Your task to perform on an android device: Do I have any events tomorrow? Image 0: 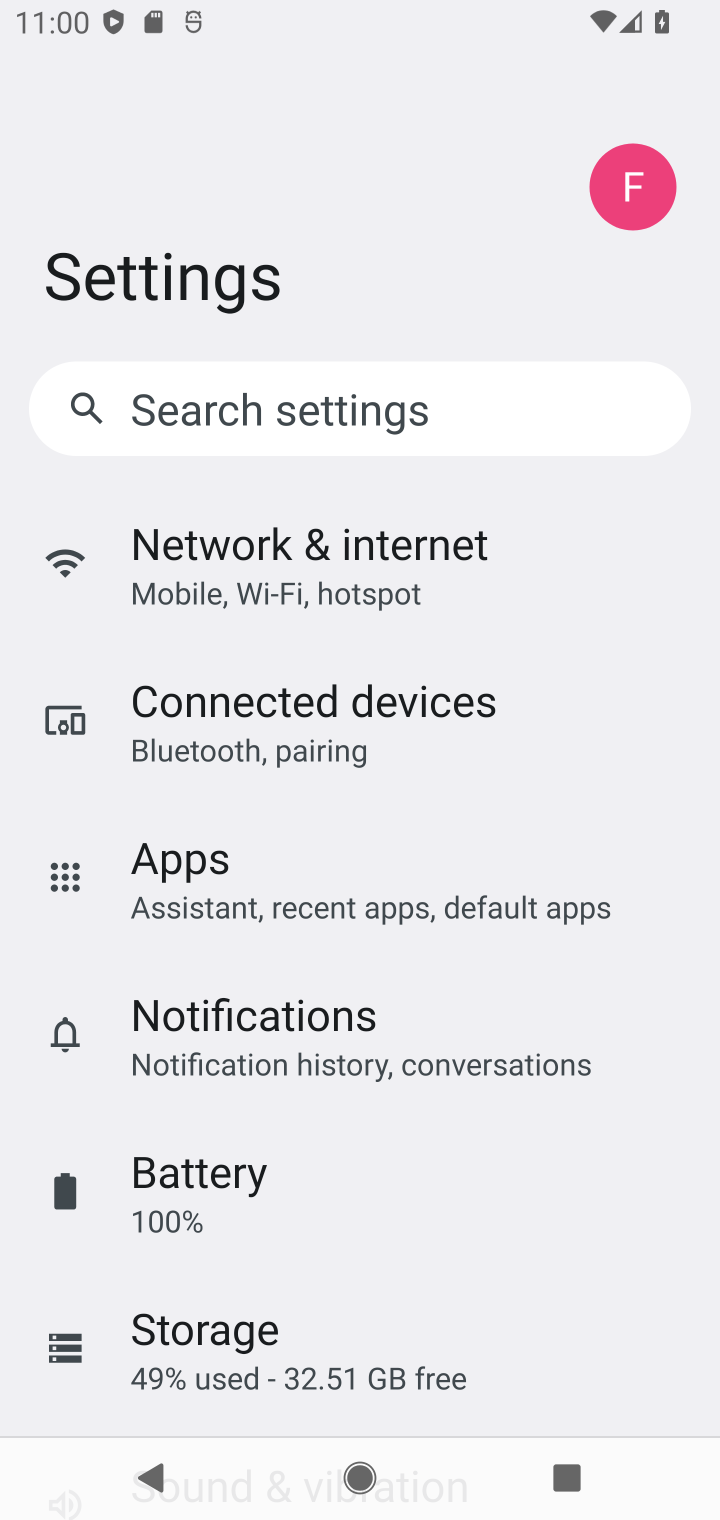
Step 0: press home button
Your task to perform on an android device: Do I have any events tomorrow? Image 1: 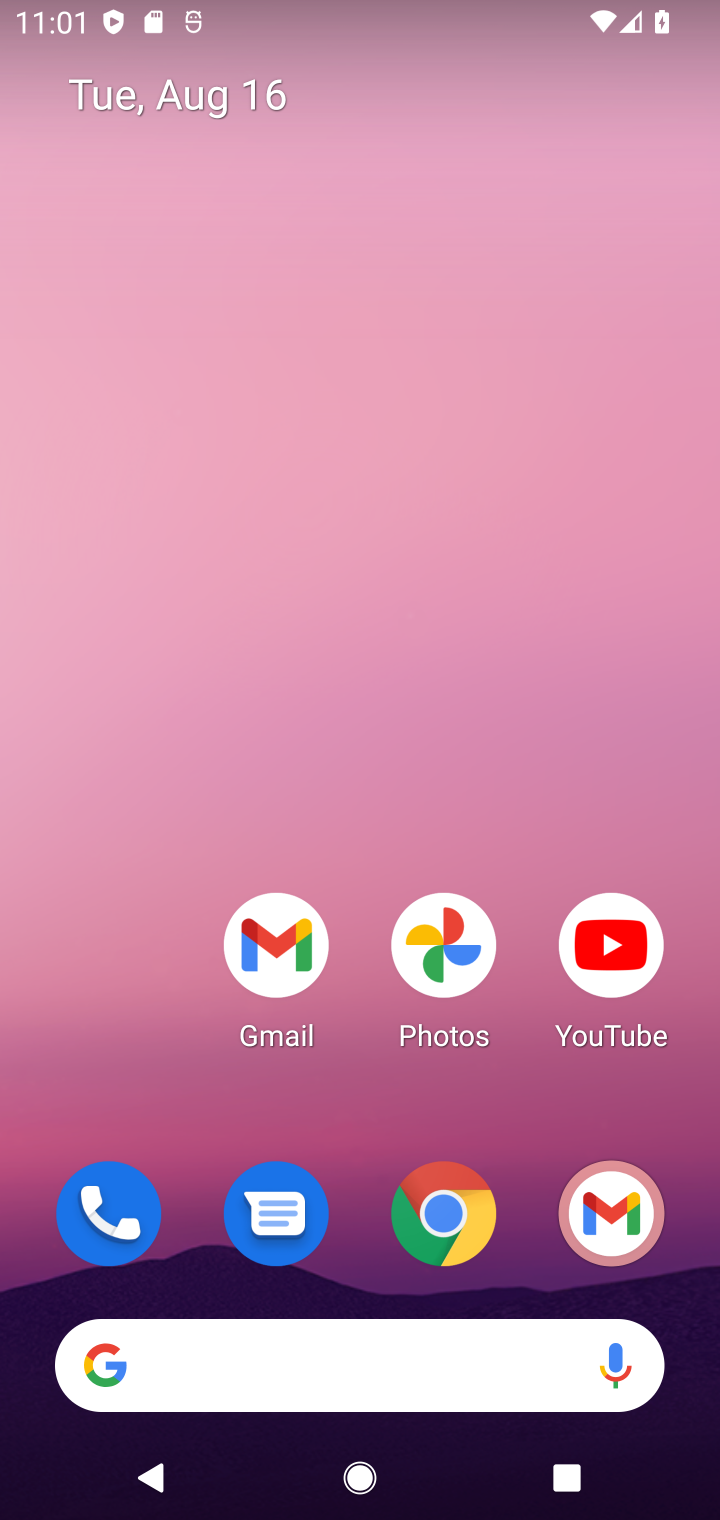
Step 1: drag from (320, 1084) to (477, 2)
Your task to perform on an android device: Do I have any events tomorrow? Image 2: 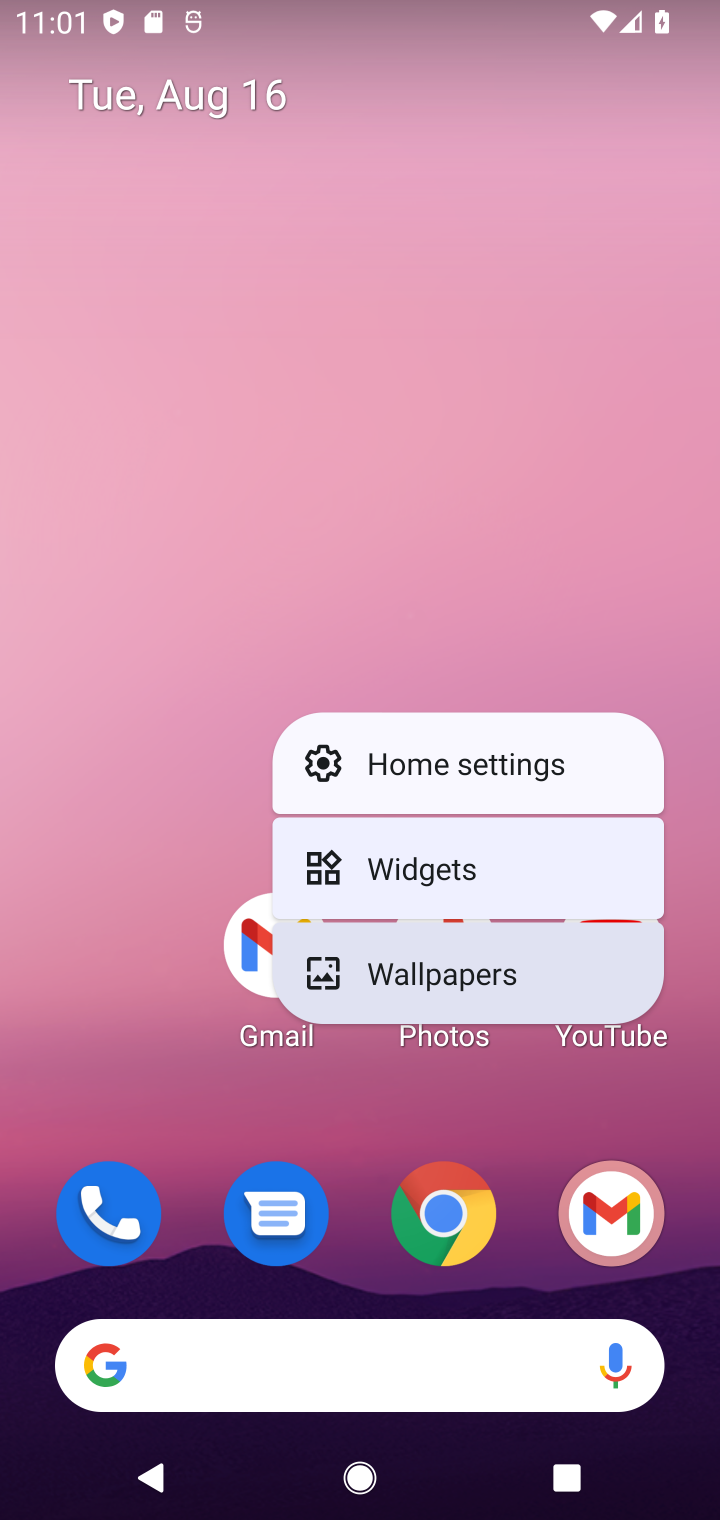
Step 2: drag from (18, 991) to (133, 986)
Your task to perform on an android device: Do I have any events tomorrow? Image 3: 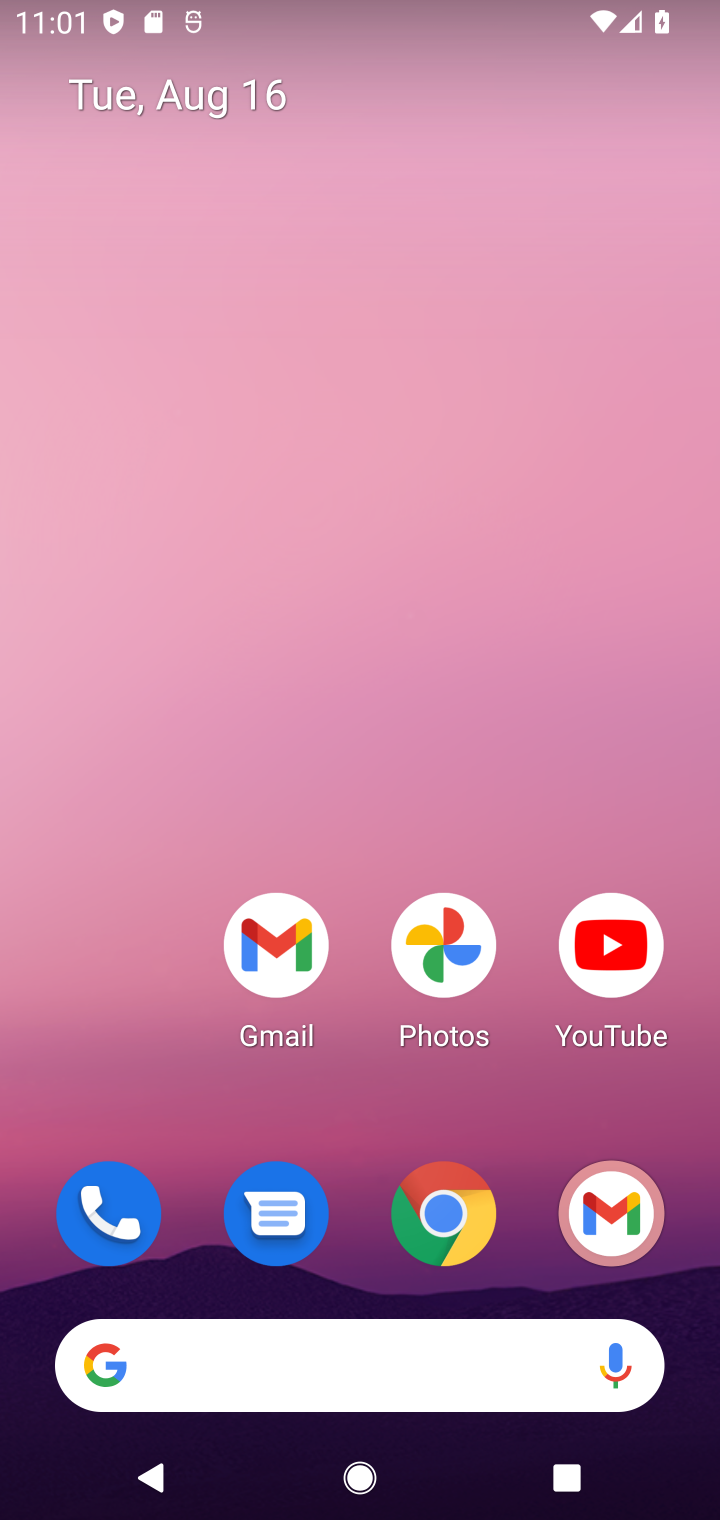
Step 3: click (133, 986)
Your task to perform on an android device: Do I have any events tomorrow? Image 4: 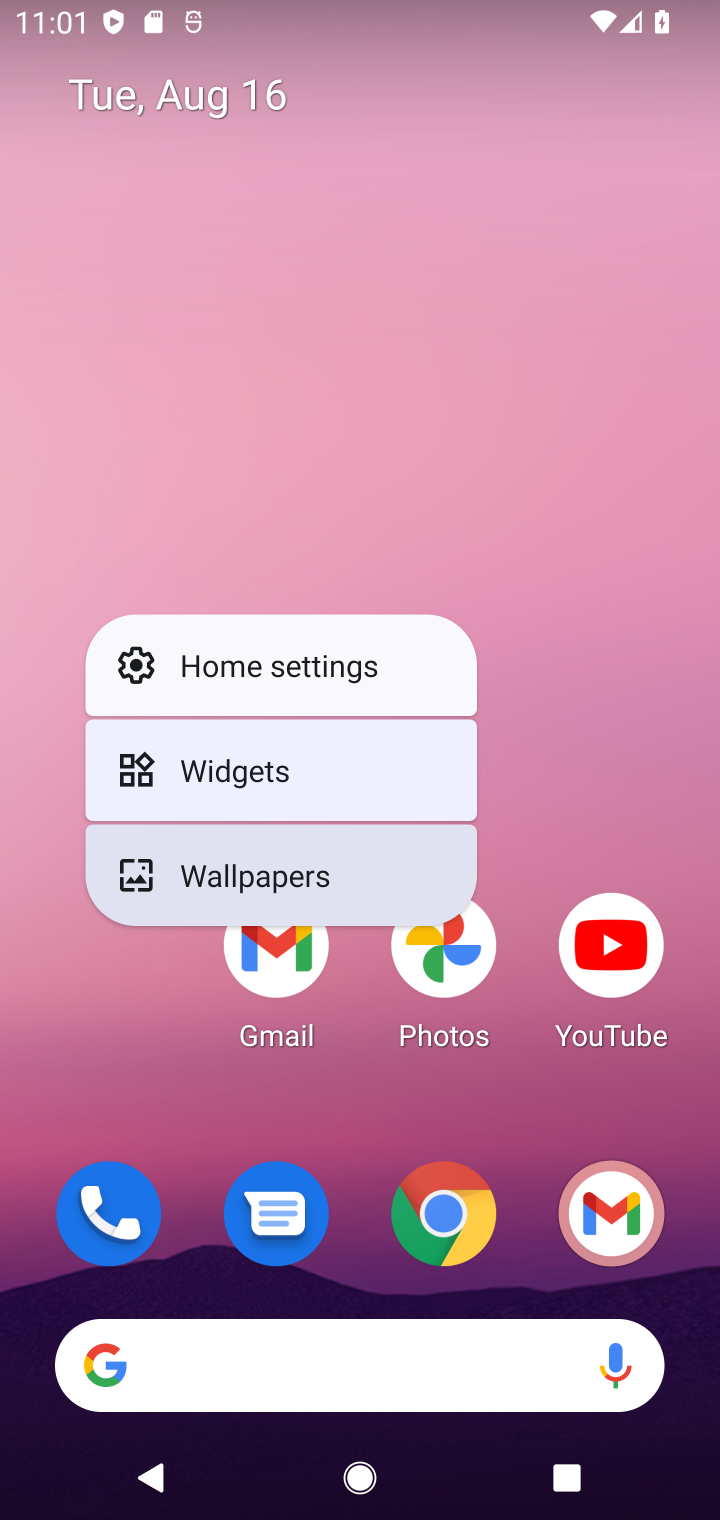
Step 4: click (553, 685)
Your task to perform on an android device: Do I have any events tomorrow? Image 5: 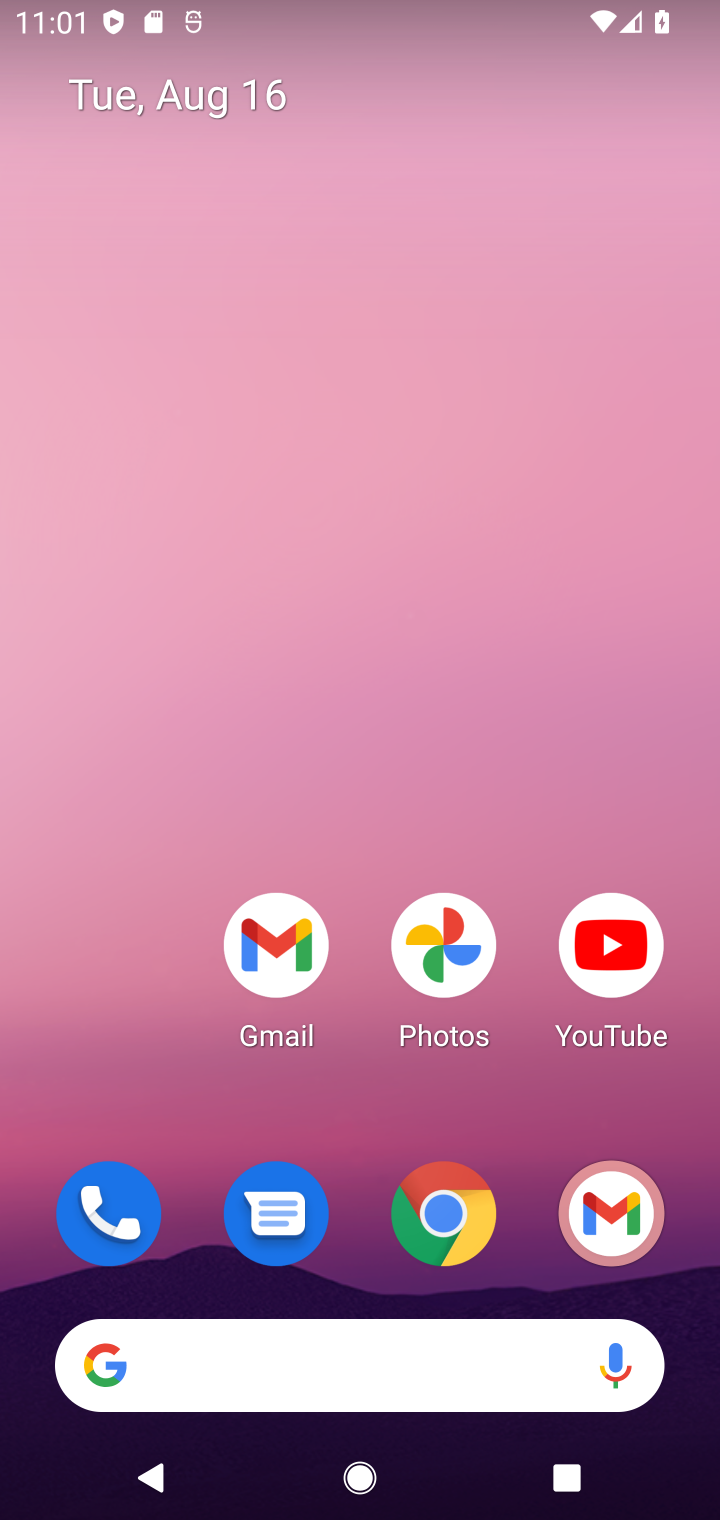
Step 5: click (553, 685)
Your task to perform on an android device: Do I have any events tomorrow? Image 6: 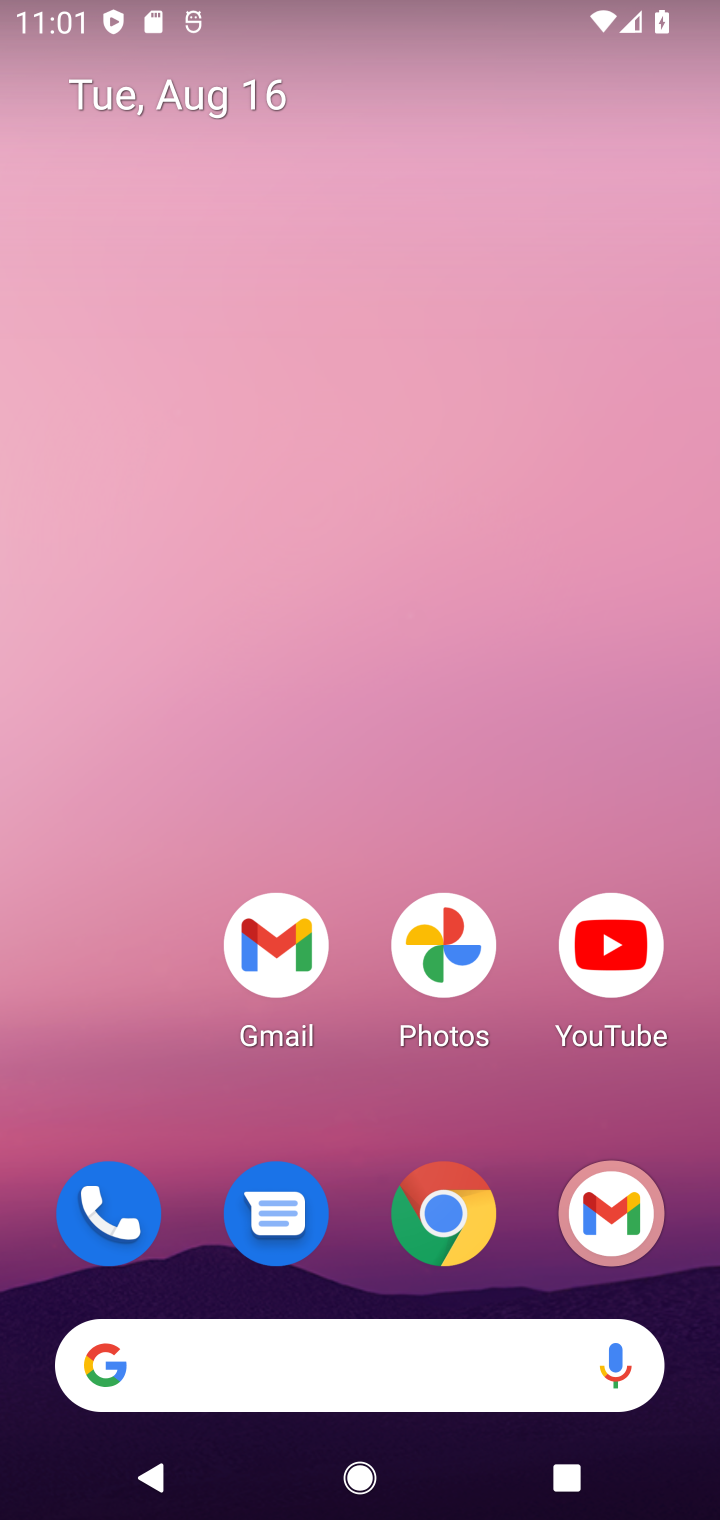
Step 6: drag from (358, 1070) to (559, 14)
Your task to perform on an android device: Do I have any events tomorrow? Image 7: 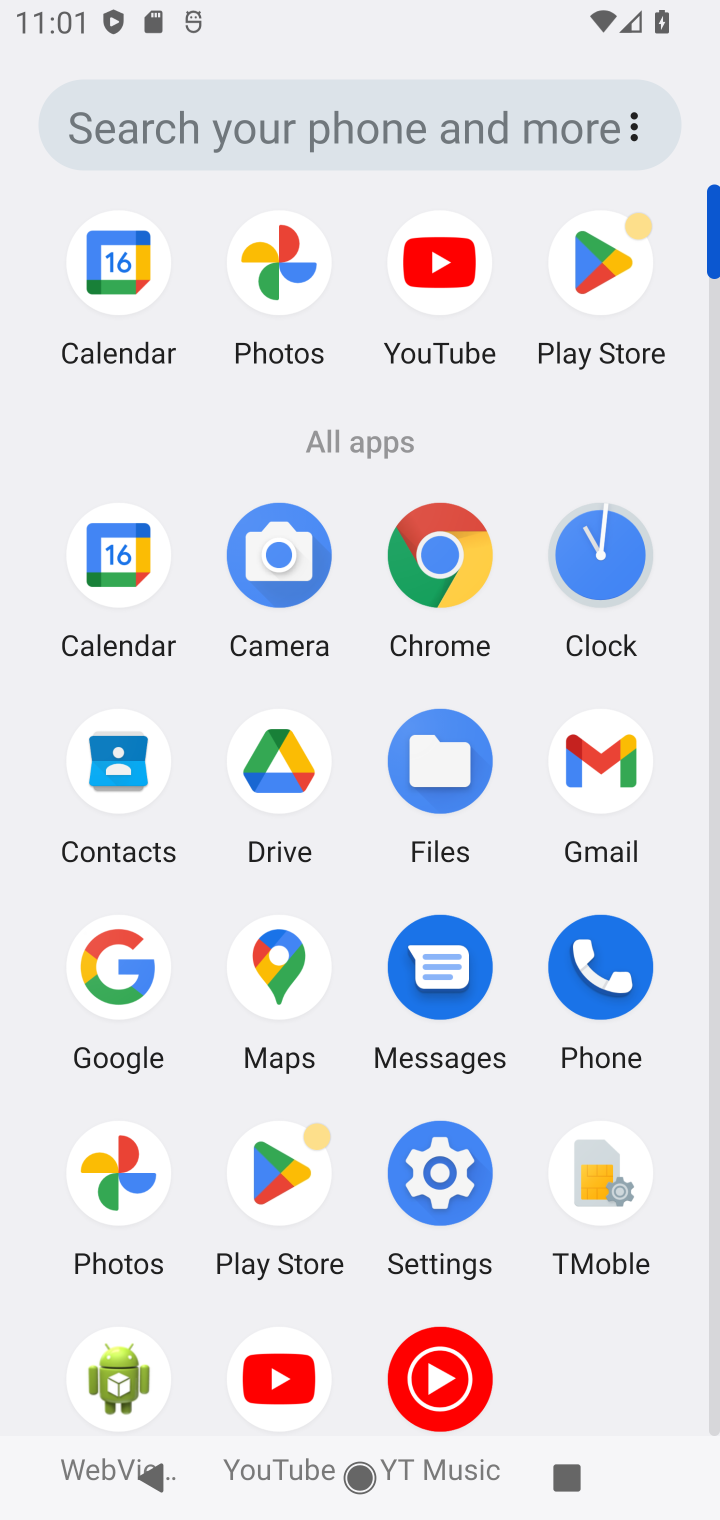
Step 7: click (113, 527)
Your task to perform on an android device: Do I have any events tomorrow? Image 8: 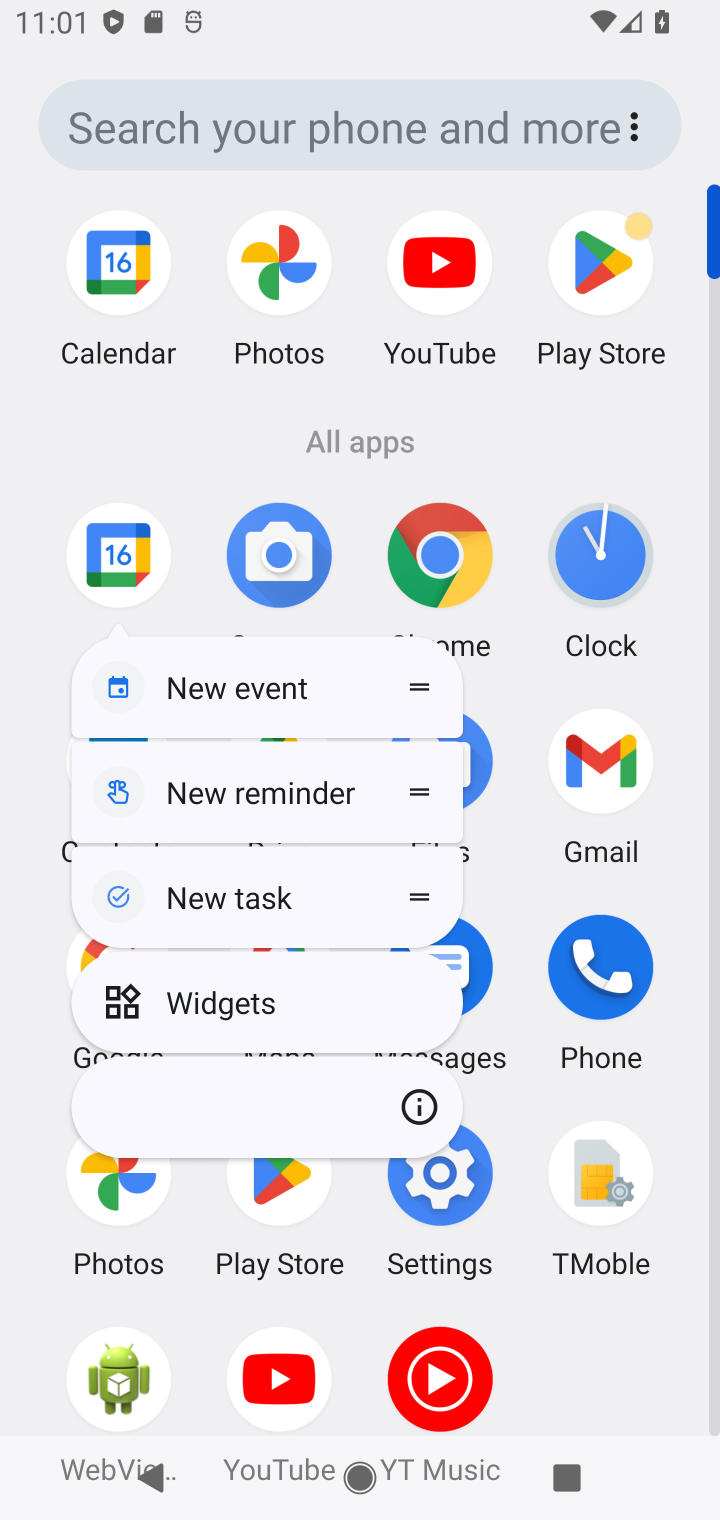
Step 8: click (117, 556)
Your task to perform on an android device: Do I have any events tomorrow? Image 9: 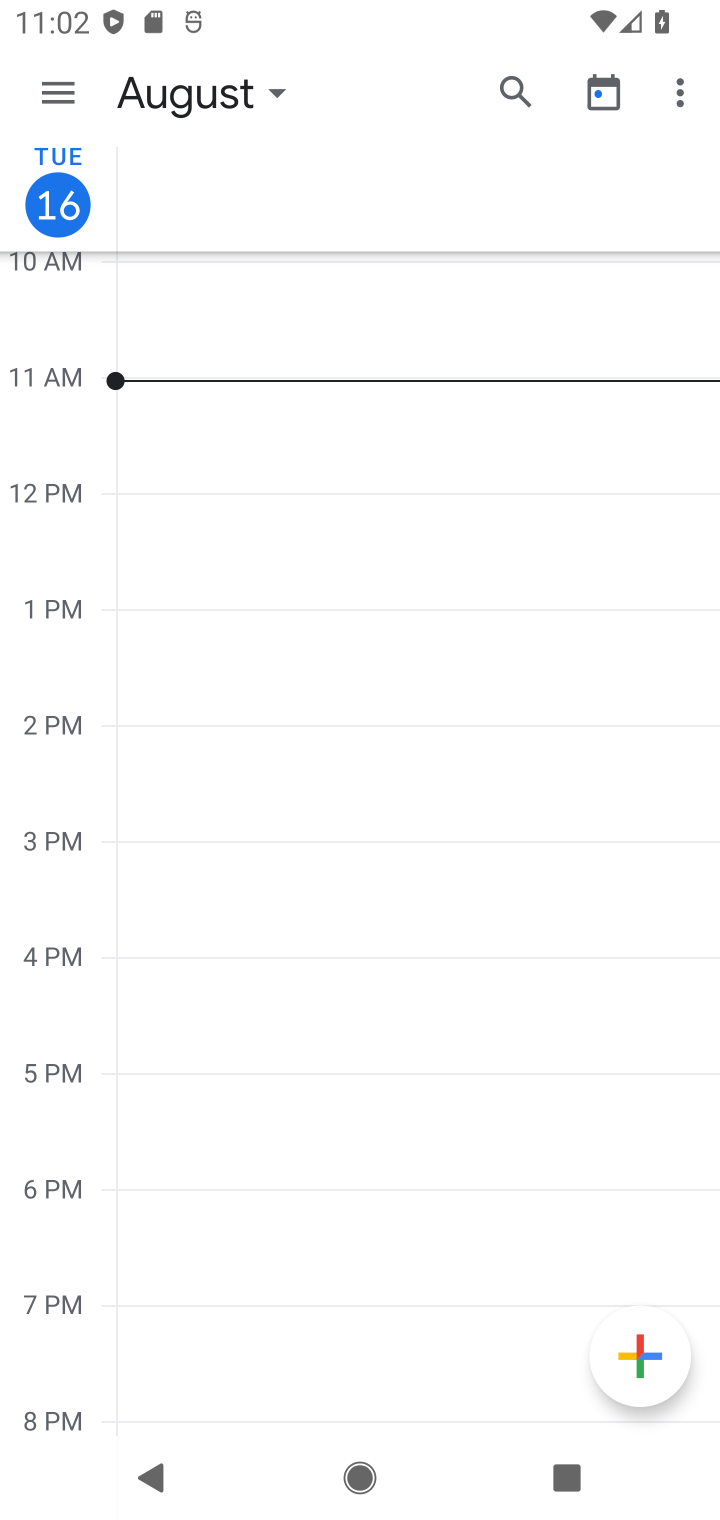
Step 9: click (200, 99)
Your task to perform on an android device: Do I have any events tomorrow? Image 10: 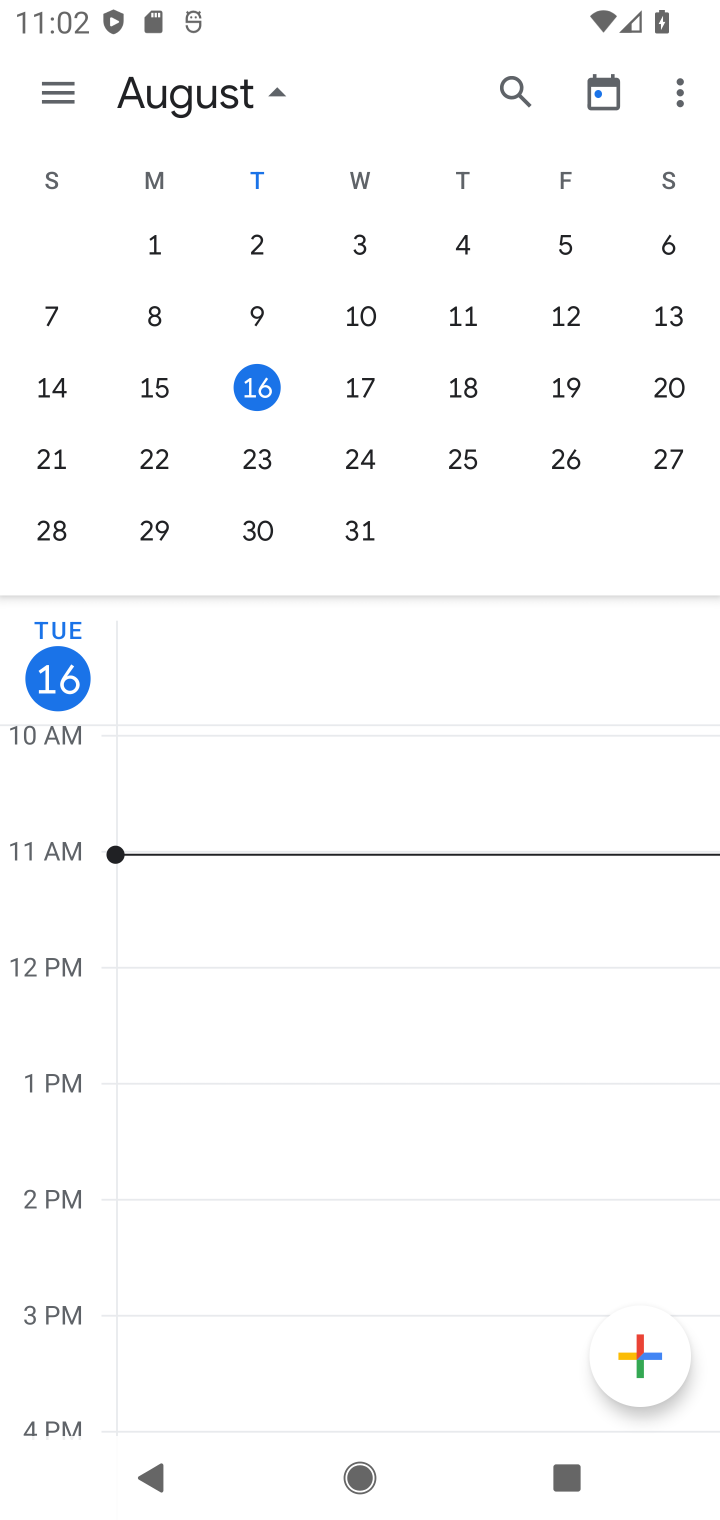
Step 10: click (371, 388)
Your task to perform on an android device: Do I have any events tomorrow? Image 11: 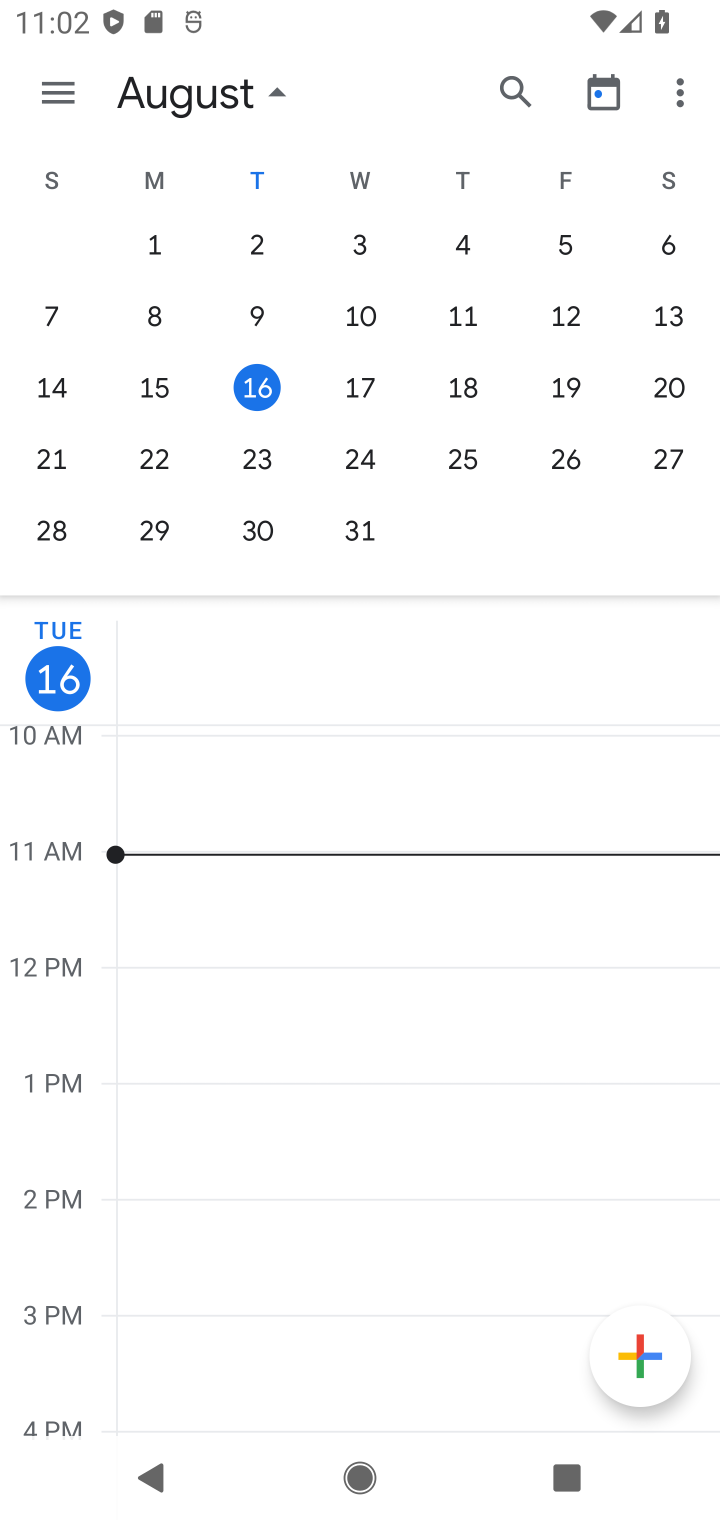
Step 11: click (371, 388)
Your task to perform on an android device: Do I have any events tomorrow? Image 12: 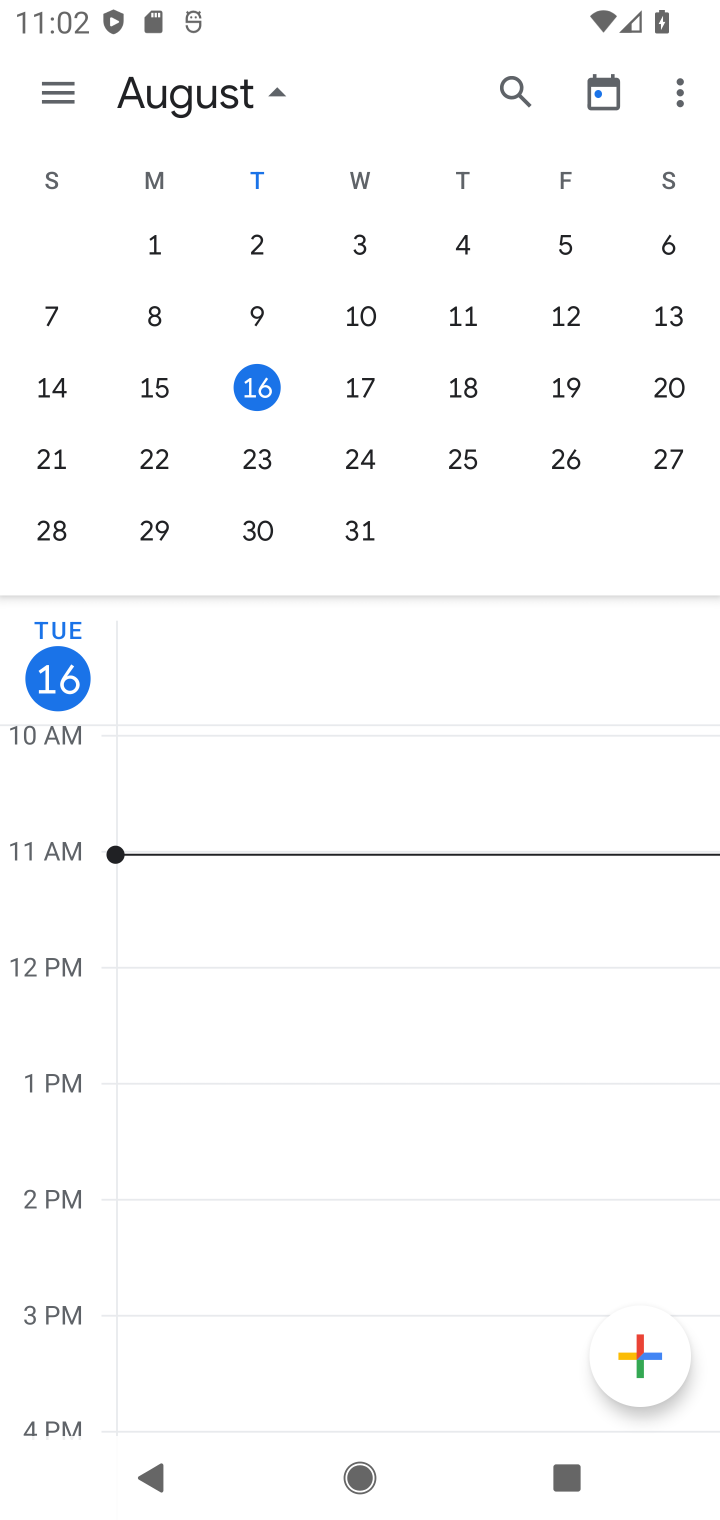
Step 12: click (355, 382)
Your task to perform on an android device: Do I have any events tomorrow? Image 13: 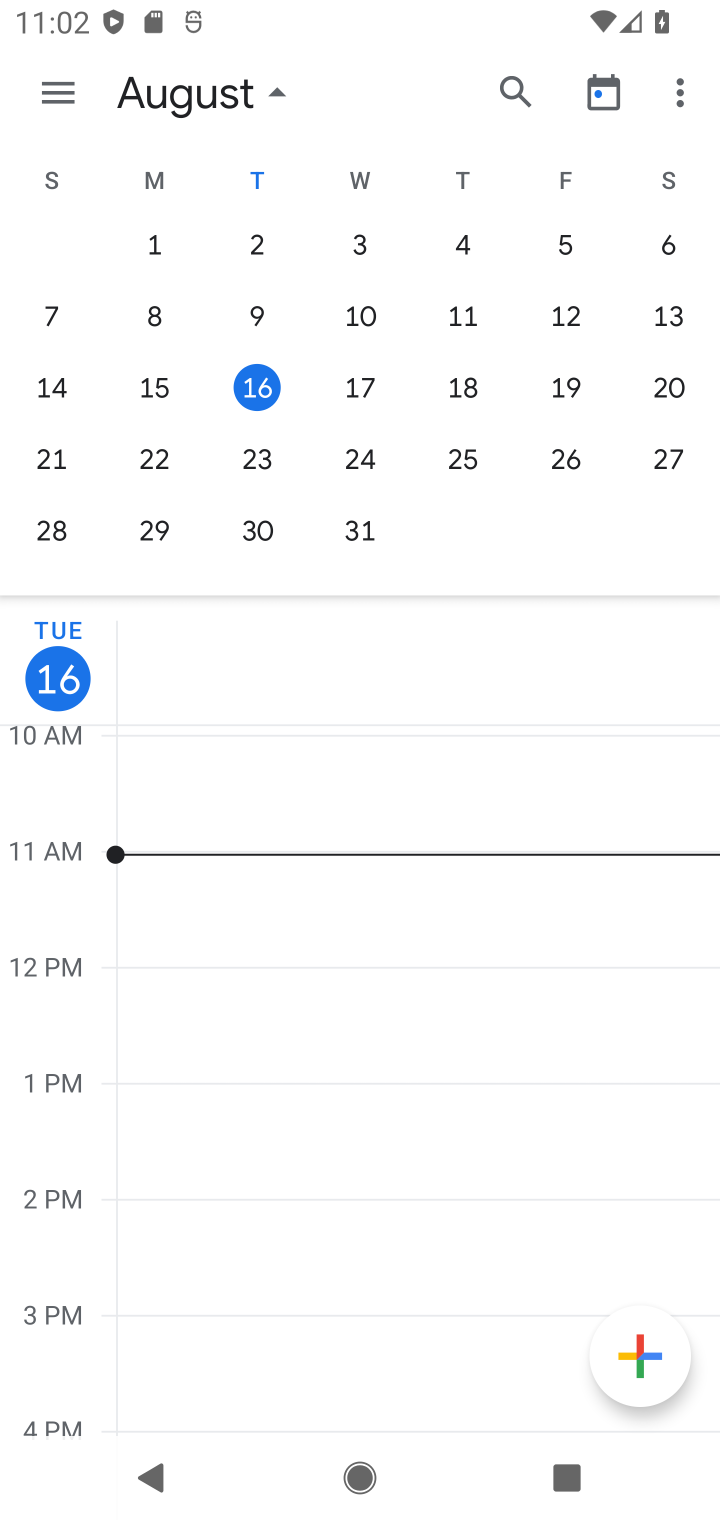
Step 13: click (355, 382)
Your task to perform on an android device: Do I have any events tomorrow? Image 14: 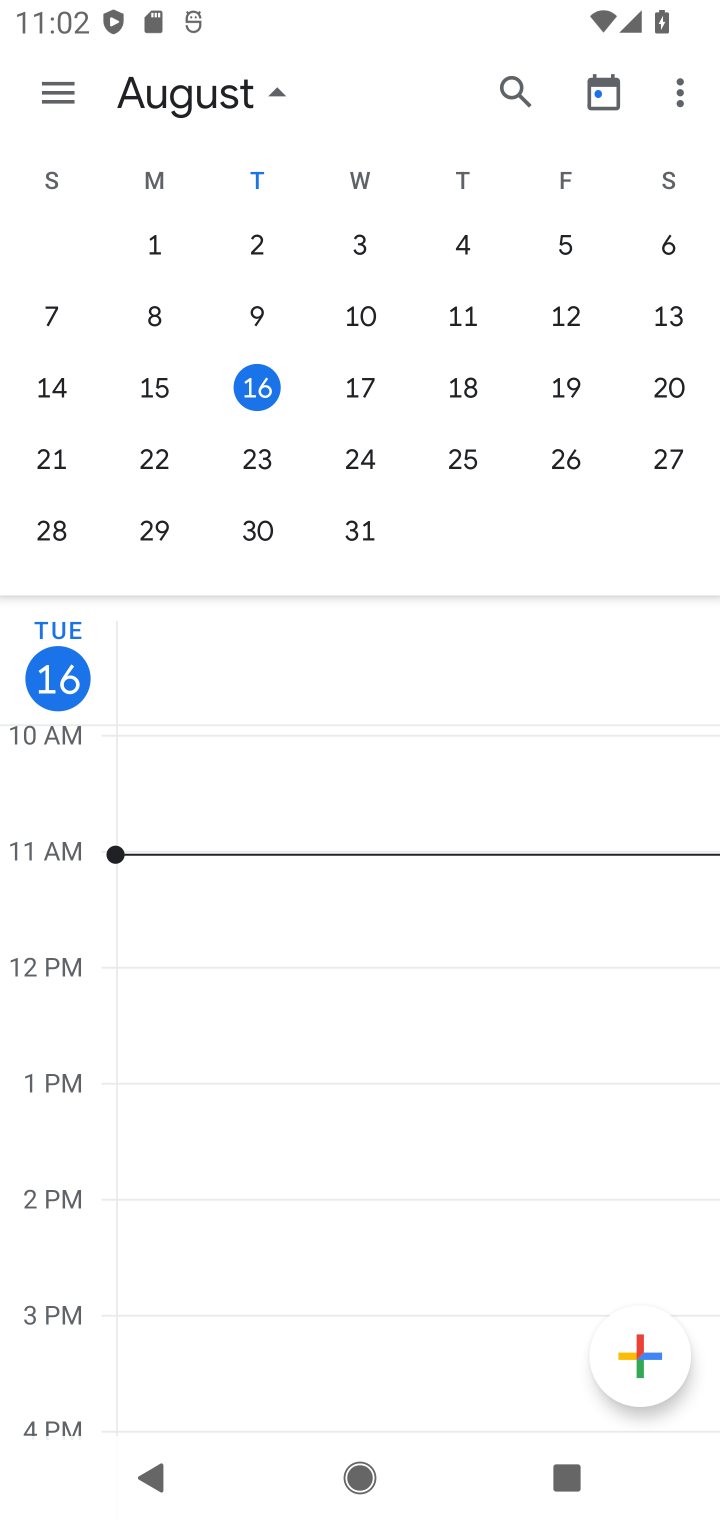
Step 14: click (355, 382)
Your task to perform on an android device: Do I have any events tomorrow? Image 15: 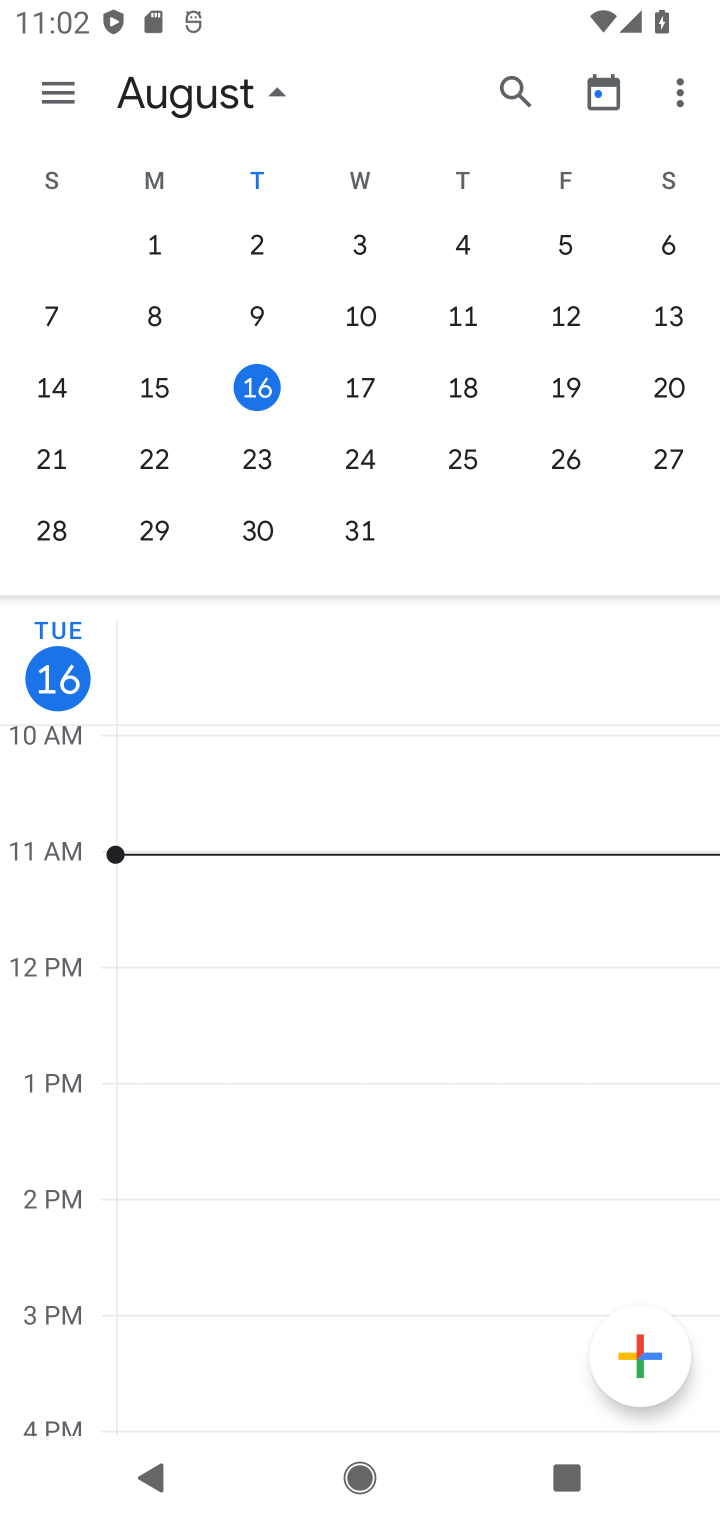
Step 15: drag from (355, 777) to (465, 140)
Your task to perform on an android device: Do I have any events tomorrow? Image 16: 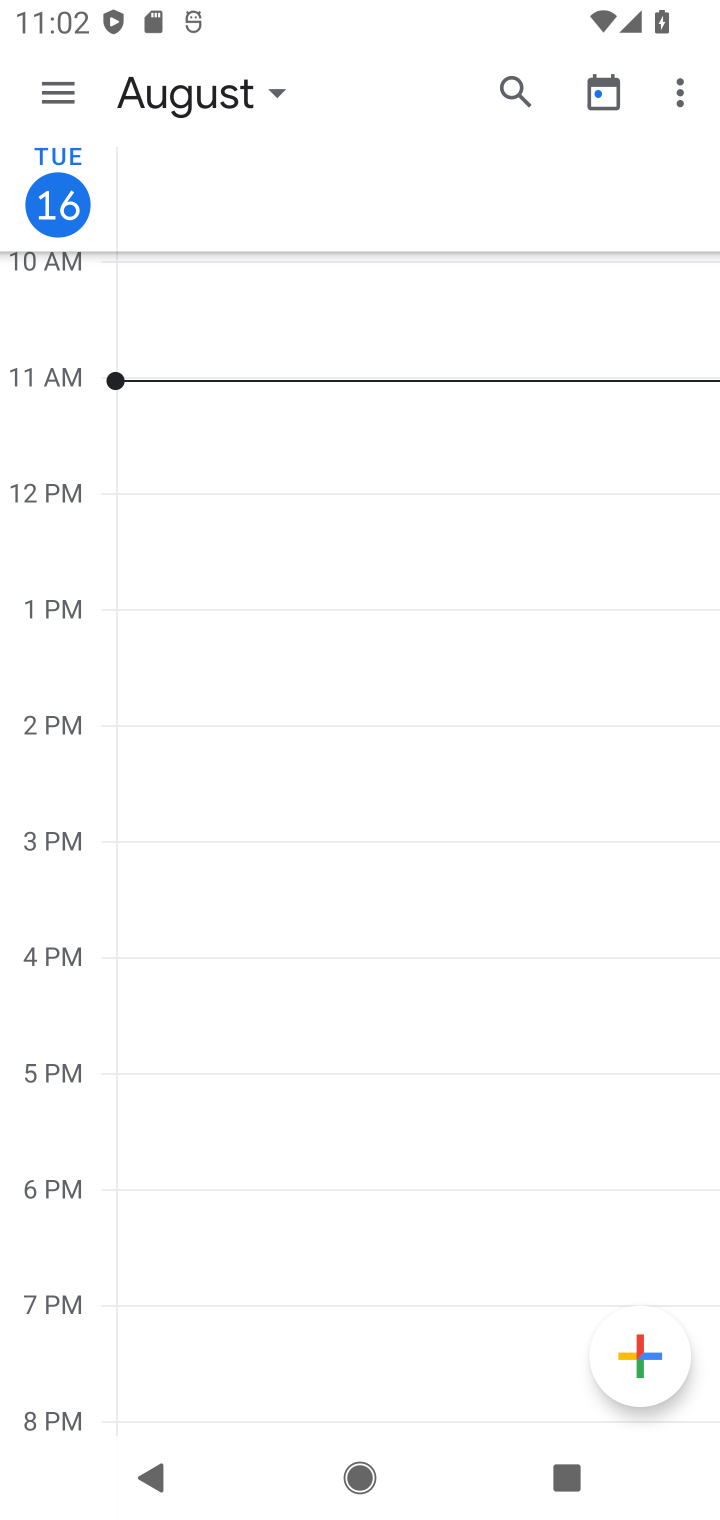
Step 16: click (182, 92)
Your task to perform on an android device: Do I have any events tomorrow? Image 17: 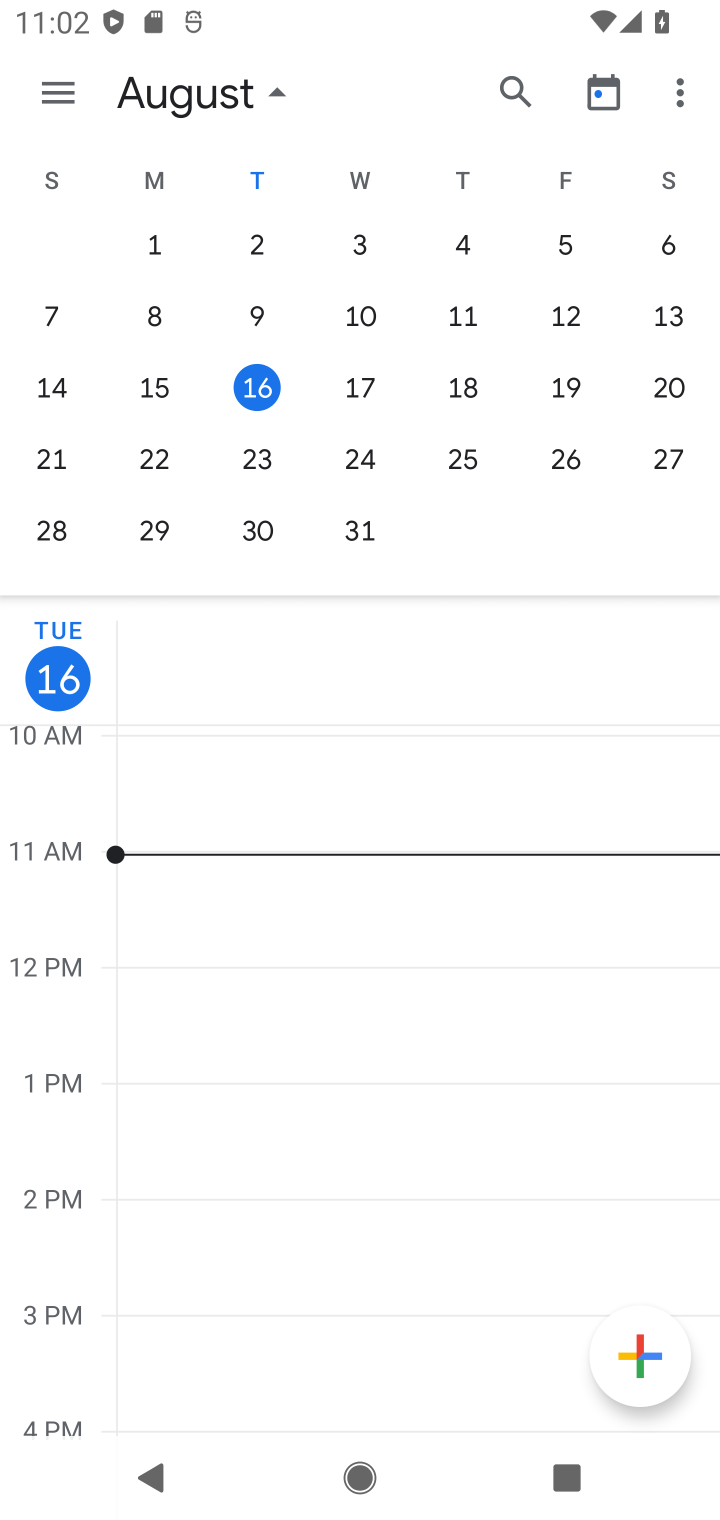
Step 17: click (378, 380)
Your task to perform on an android device: Do I have any events tomorrow? Image 18: 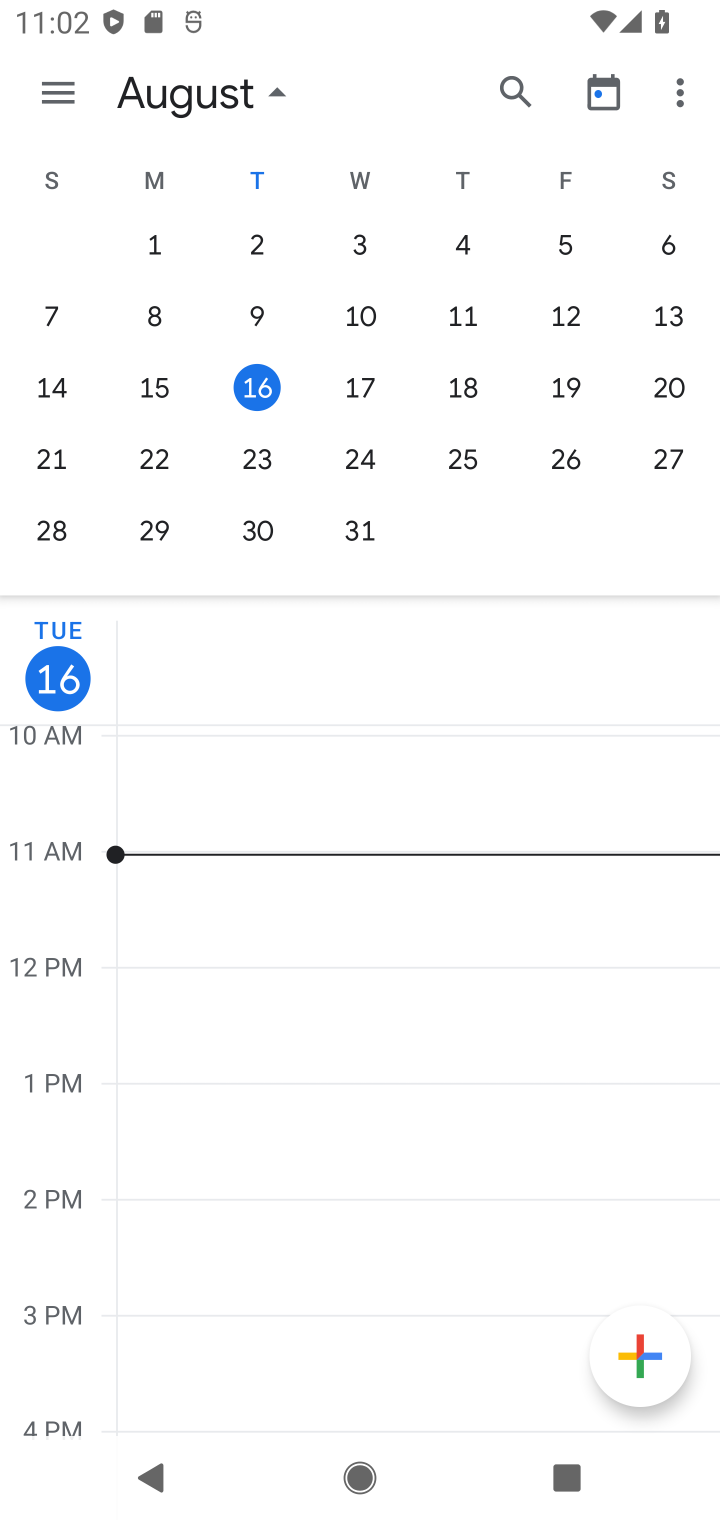
Step 18: click (364, 406)
Your task to perform on an android device: Do I have any events tomorrow? Image 19: 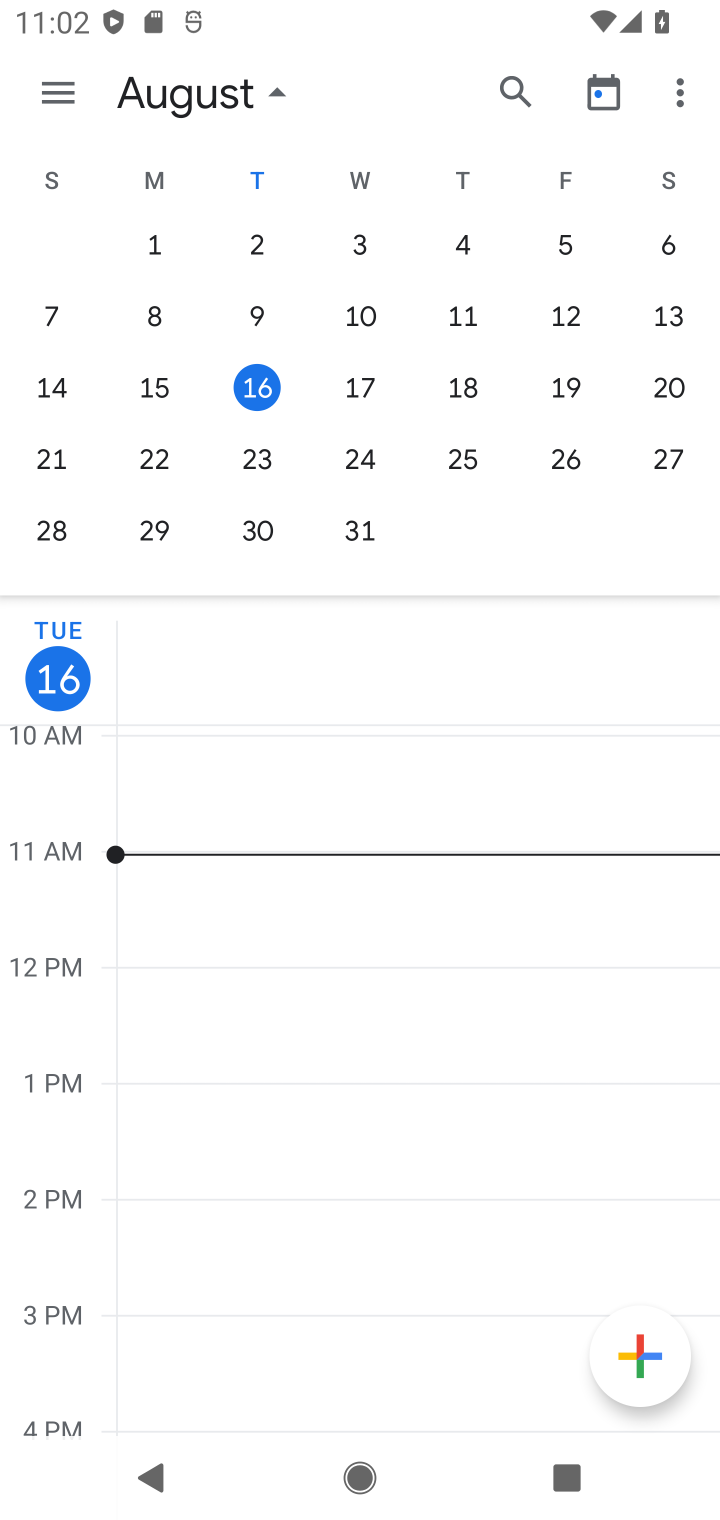
Step 19: click (366, 396)
Your task to perform on an android device: Do I have any events tomorrow? Image 20: 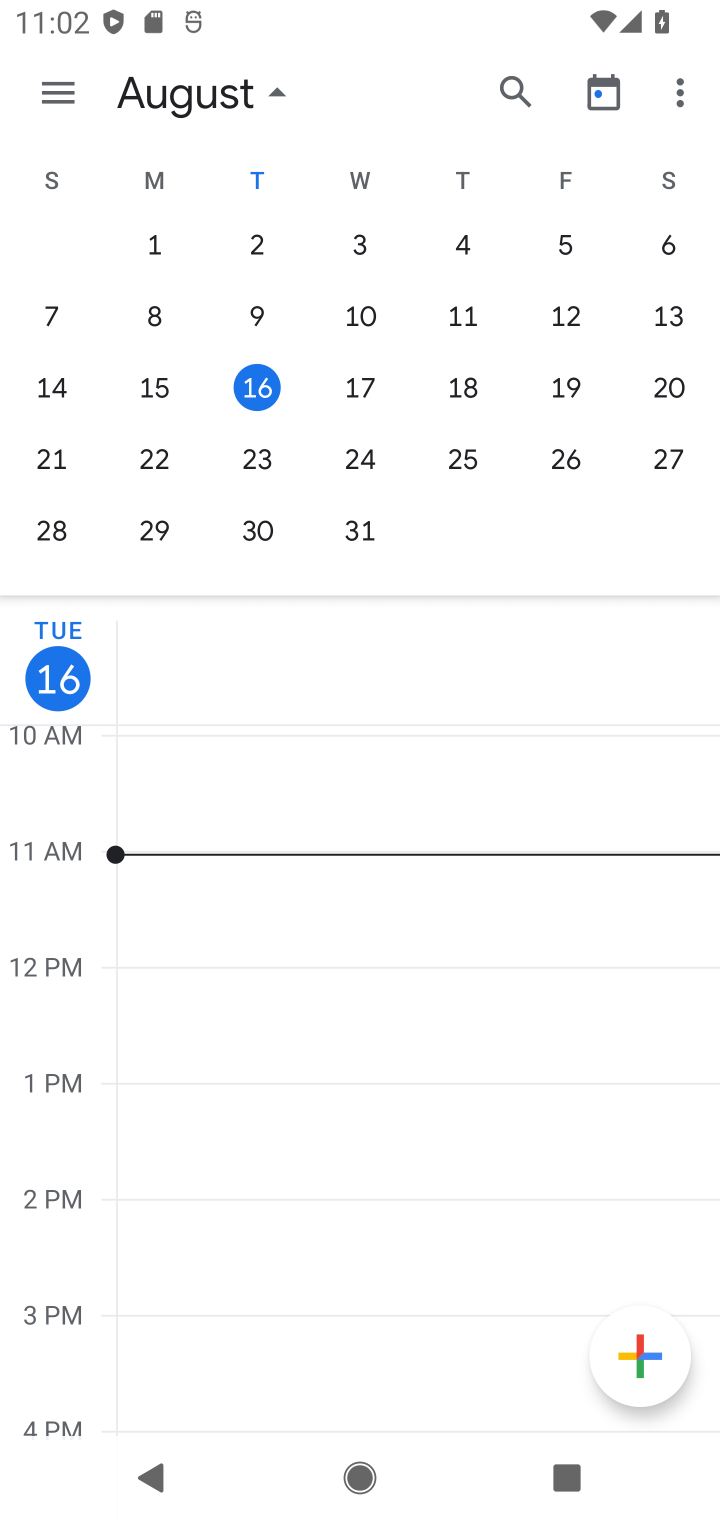
Step 20: click (366, 382)
Your task to perform on an android device: Do I have any events tomorrow? Image 21: 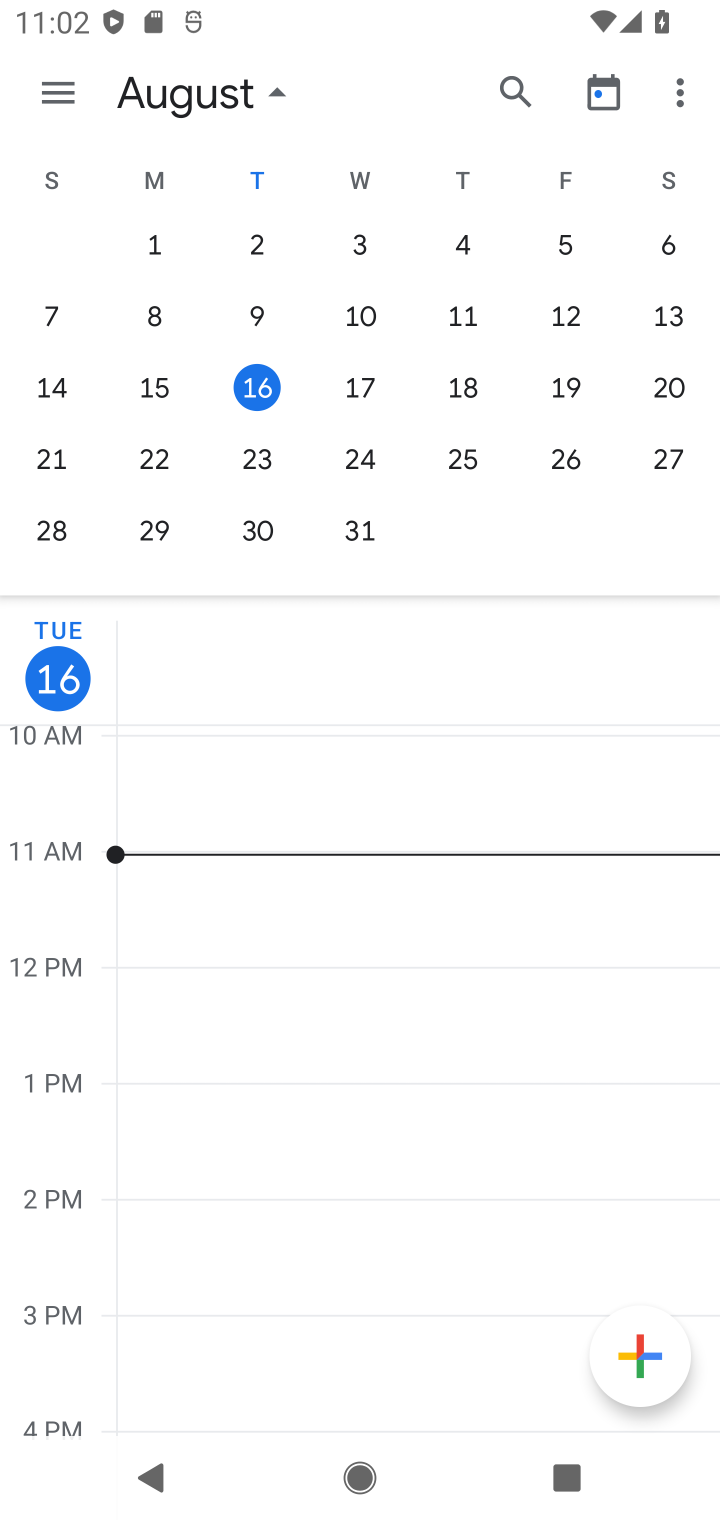
Step 21: click (366, 382)
Your task to perform on an android device: Do I have any events tomorrow? Image 22: 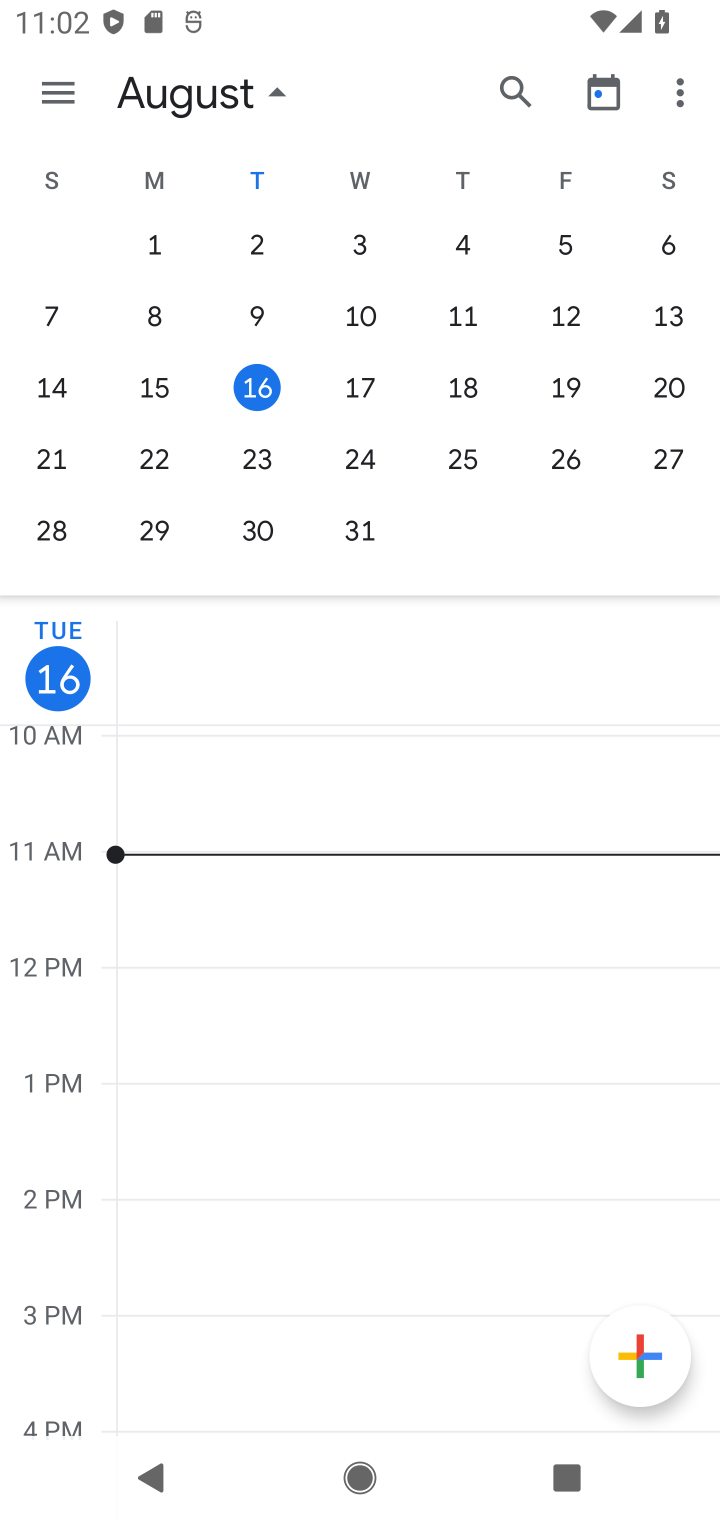
Step 22: click (463, 341)
Your task to perform on an android device: Do I have any events tomorrow? Image 23: 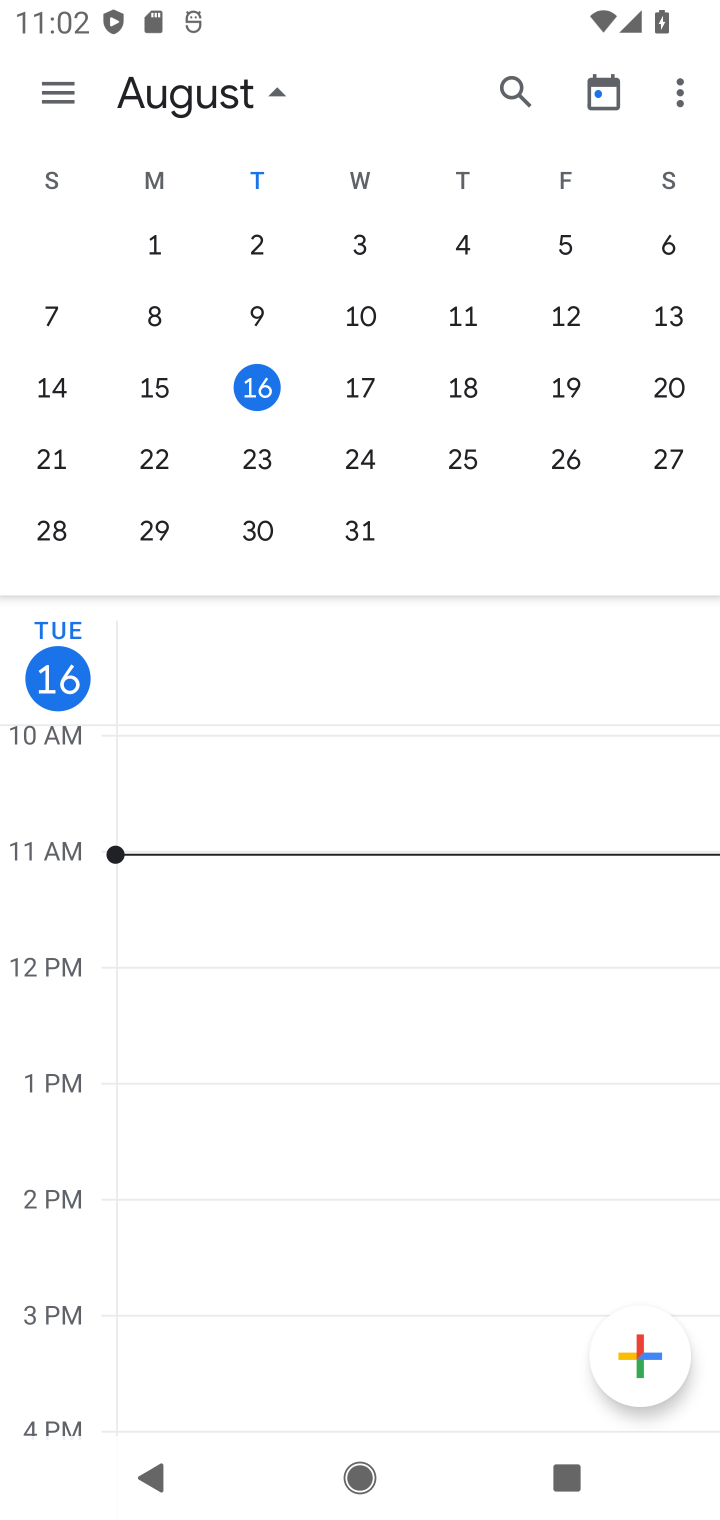
Step 23: click (459, 382)
Your task to perform on an android device: Do I have any events tomorrow? Image 24: 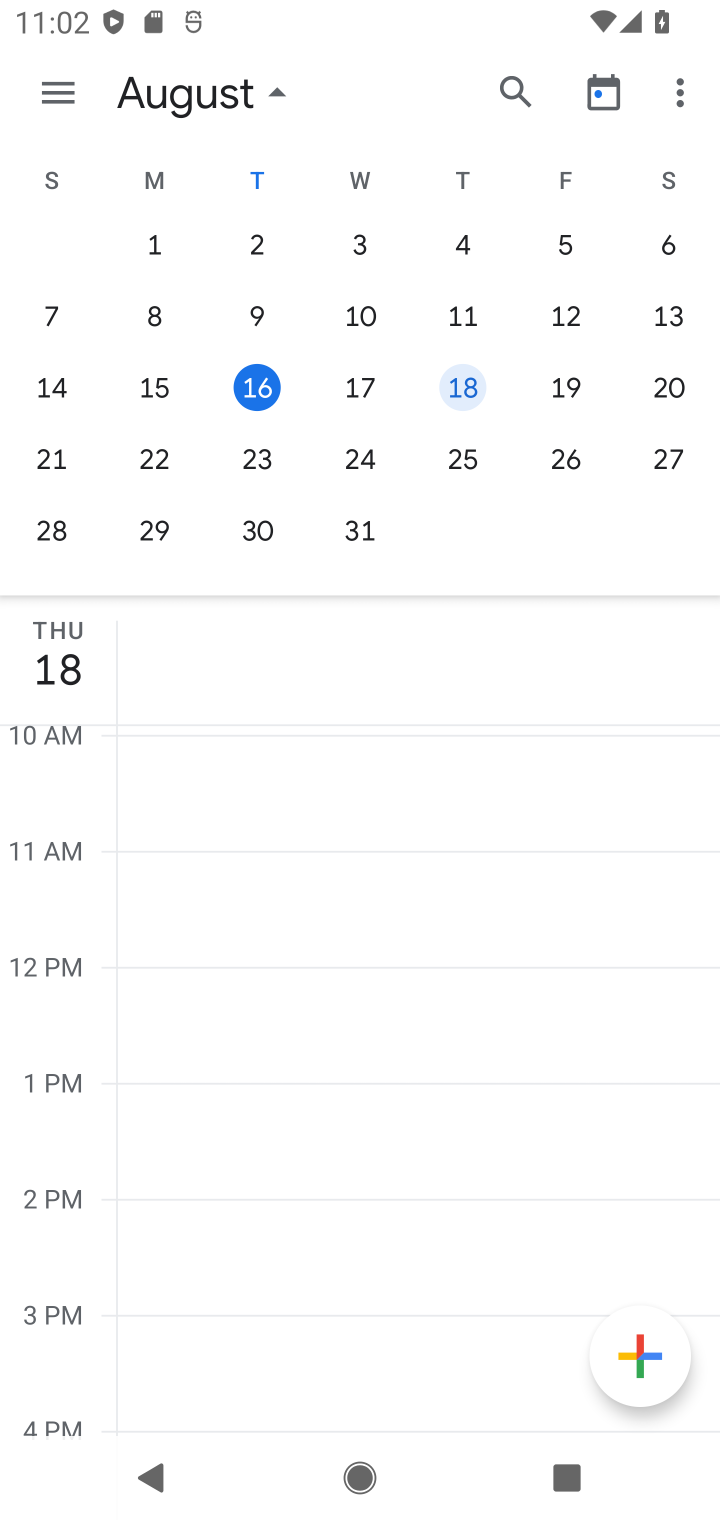
Step 24: click (372, 388)
Your task to perform on an android device: Do I have any events tomorrow? Image 25: 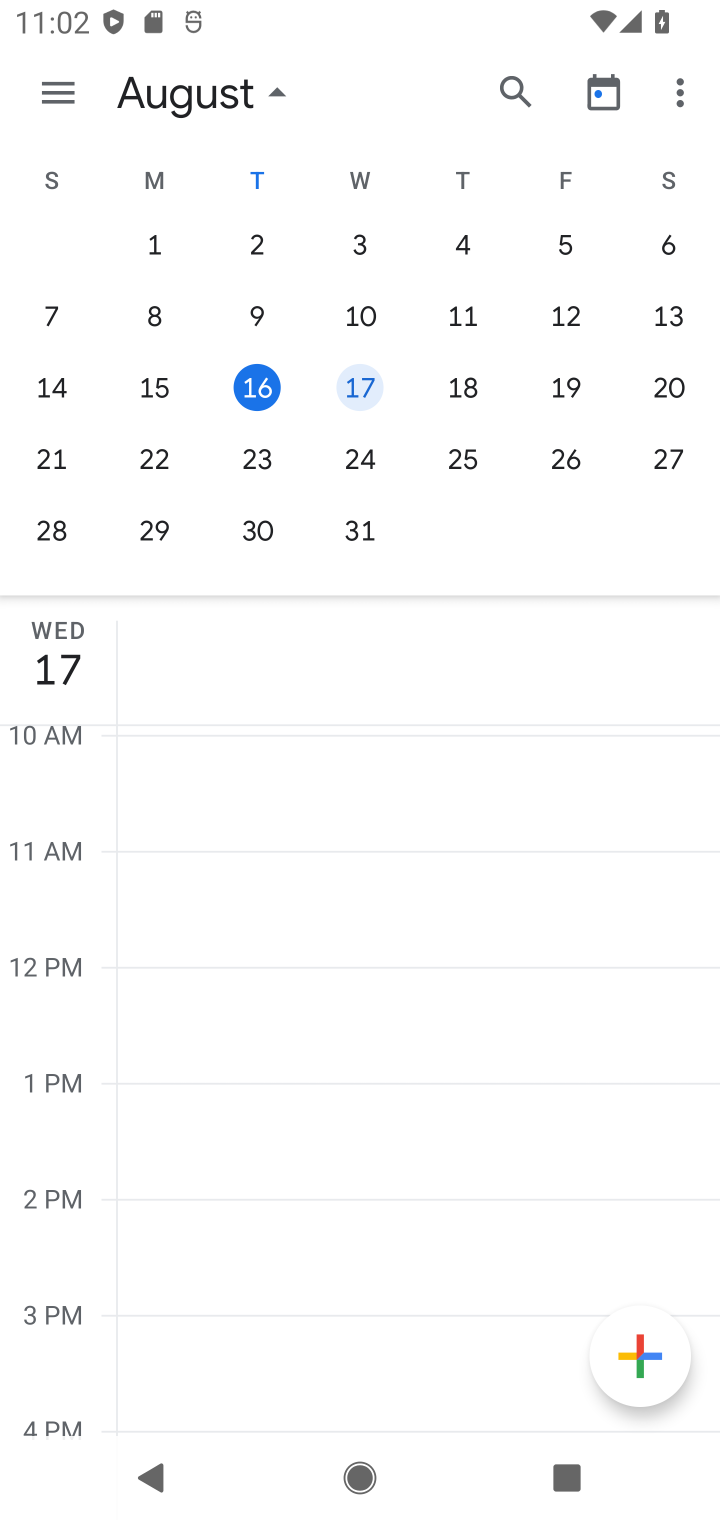
Step 25: task complete